Your task to perform on an android device: toggle data saver in the chrome app Image 0: 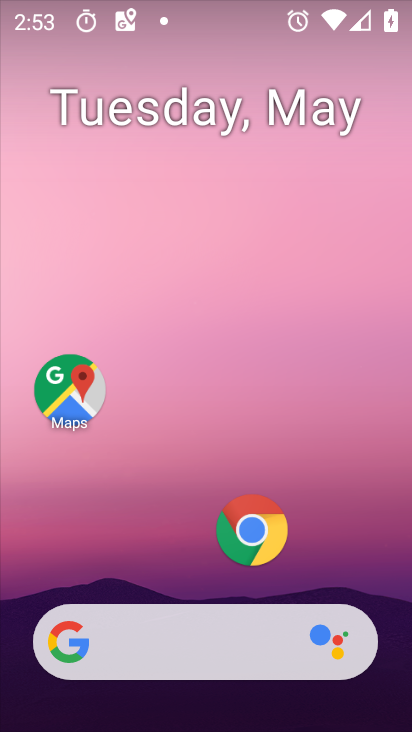
Step 0: click (251, 560)
Your task to perform on an android device: toggle data saver in the chrome app Image 1: 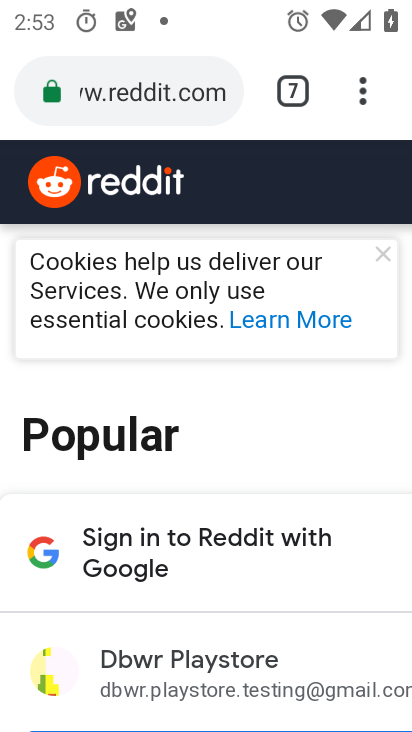
Step 1: click (363, 96)
Your task to perform on an android device: toggle data saver in the chrome app Image 2: 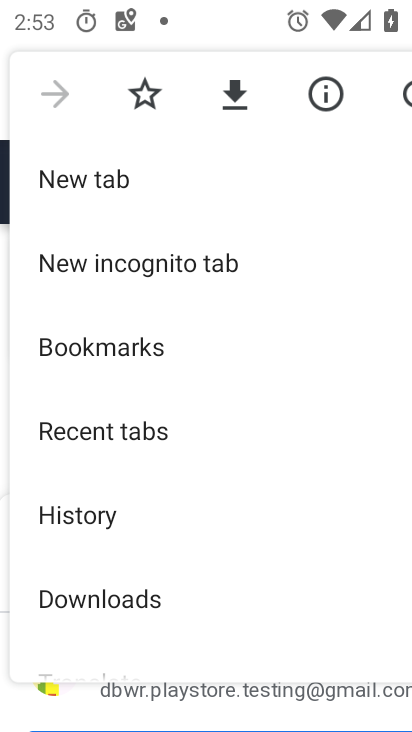
Step 2: drag from (296, 562) to (257, 108)
Your task to perform on an android device: toggle data saver in the chrome app Image 3: 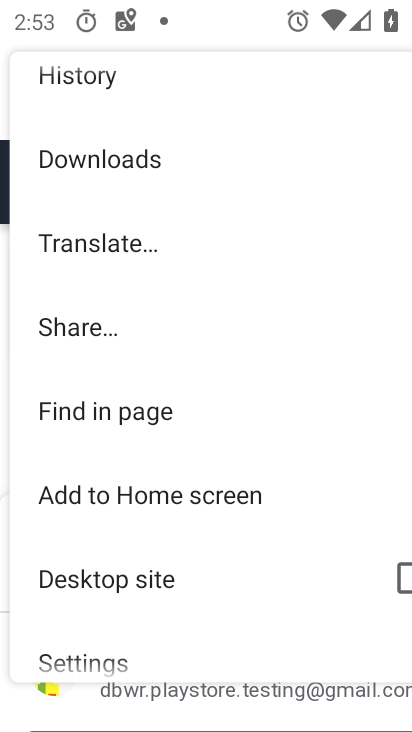
Step 3: click (92, 658)
Your task to perform on an android device: toggle data saver in the chrome app Image 4: 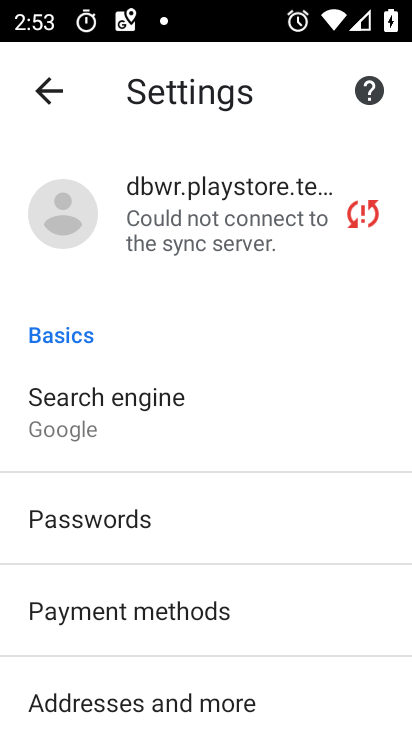
Step 4: drag from (116, 601) to (78, 173)
Your task to perform on an android device: toggle data saver in the chrome app Image 5: 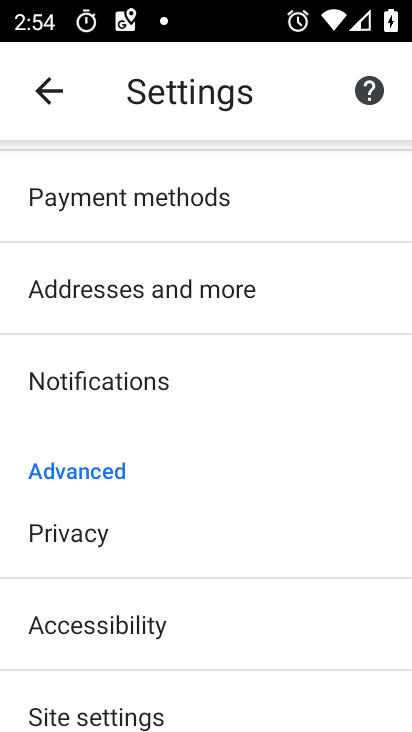
Step 5: drag from (125, 623) to (92, 274)
Your task to perform on an android device: toggle data saver in the chrome app Image 6: 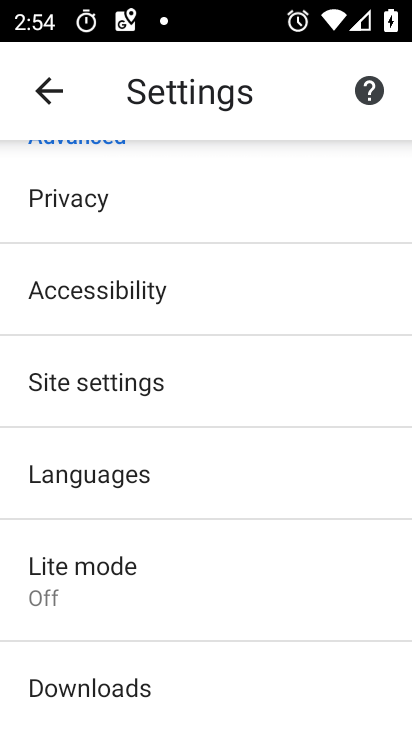
Step 6: click (126, 581)
Your task to perform on an android device: toggle data saver in the chrome app Image 7: 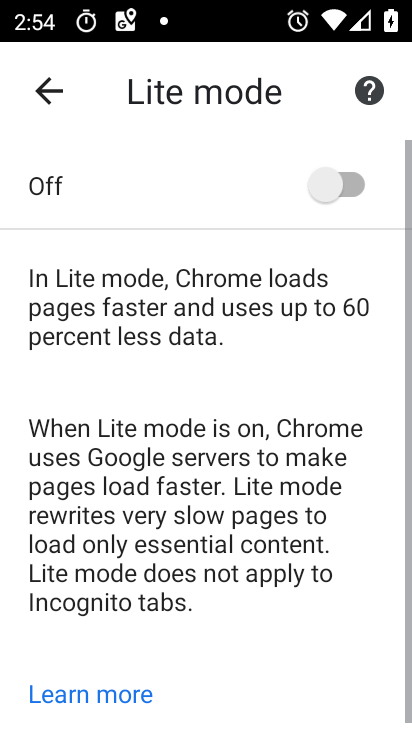
Step 7: click (331, 200)
Your task to perform on an android device: toggle data saver in the chrome app Image 8: 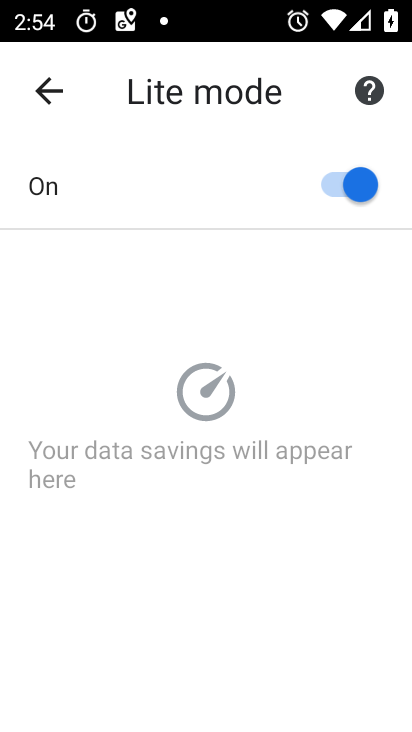
Step 8: task complete